Your task to perform on an android device: refresh tabs in the chrome app Image 0: 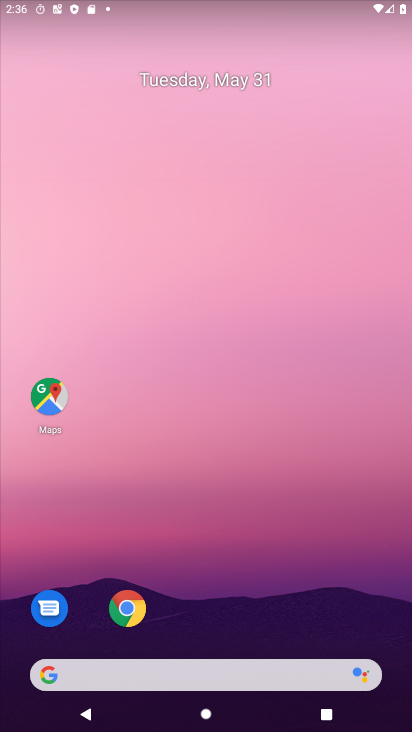
Step 0: click (123, 616)
Your task to perform on an android device: refresh tabs in the chrome app Image 1: 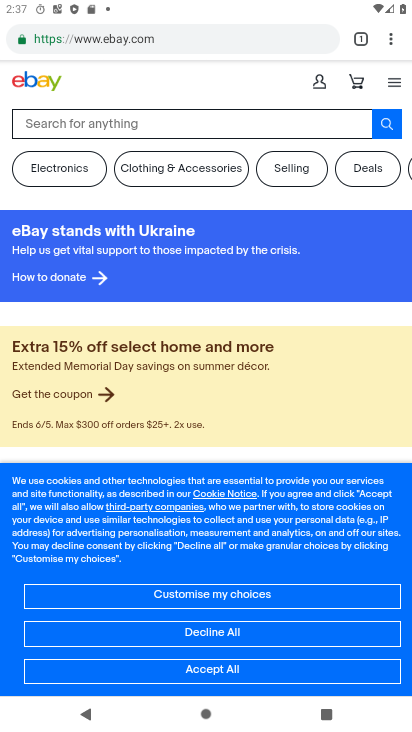
Step 1: click (390, 40)
Your task to perform on an android device: refresh tabs in the chrome app Image 2: 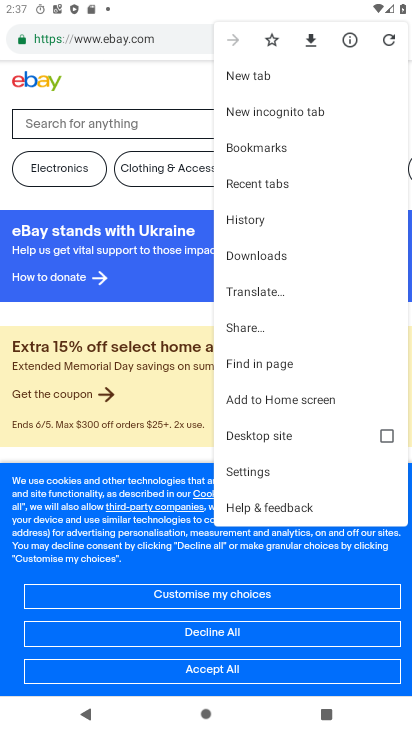
Step 2: click (382, 44)
Your task to perform on an android device: refresh tabs in the chrome app Image 3: 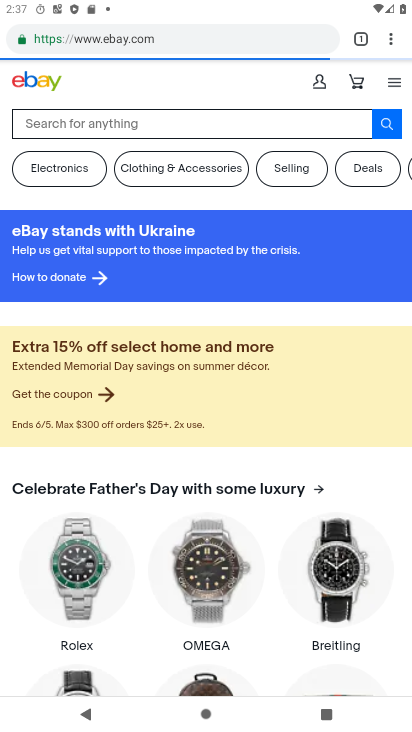
Step 3: task complete